Your task to perform on an android device: change the upload size in google photos Image 0: 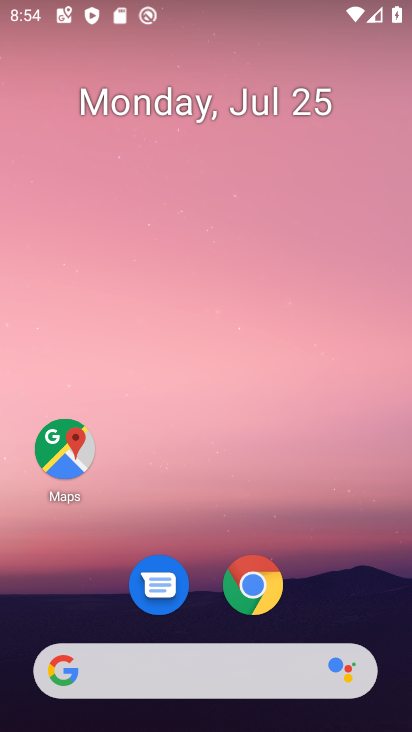
Step 0: drag from (187, 667) to (394, 46)
Your task to perform on an android device: change the upload size in google photos Image 1: 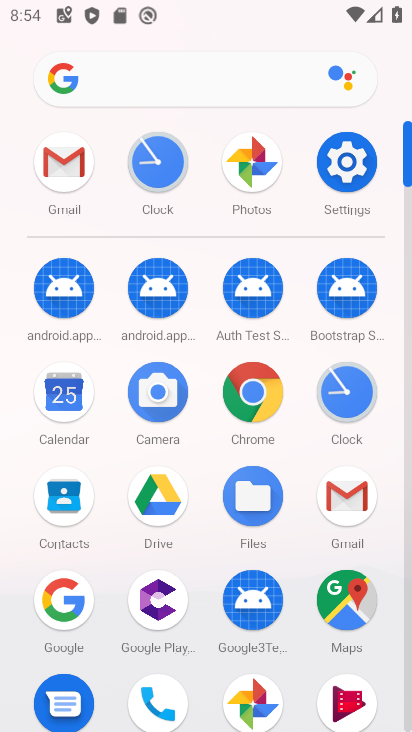
Step 1: drag from (186, 619) to (337, 220)
Your task to perform on an android device: change the upload size in google photos Image 2: 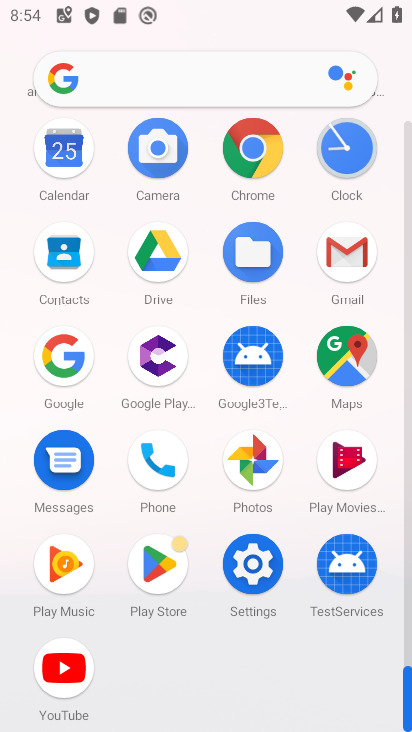
Step 2: click (254, 456)
Your task to perform on an android device: change the upload size in google photos Image 3: 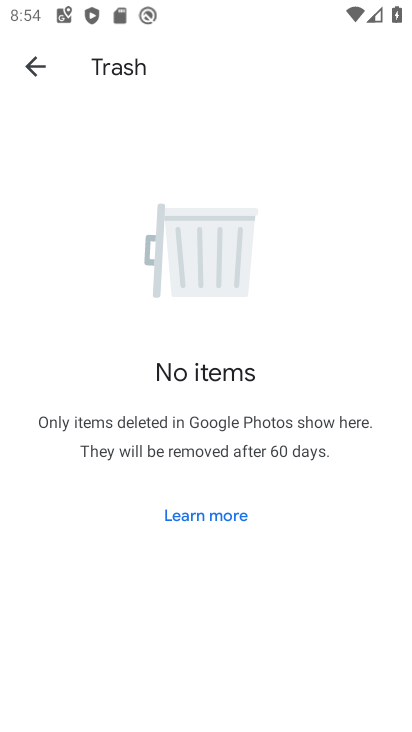
Step 3: click (37, 64)
Your task to perform on an android device: change the upload size in google photos Image 4: 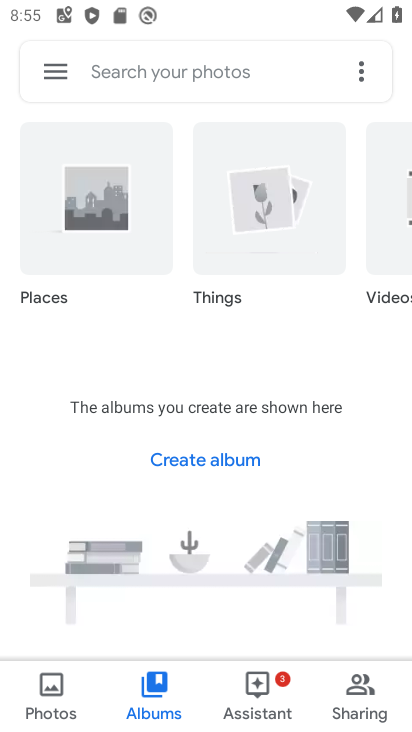
Step 4: click (49, 69)
Your task to perform on an android device: change the upload size in google photos Image 5: 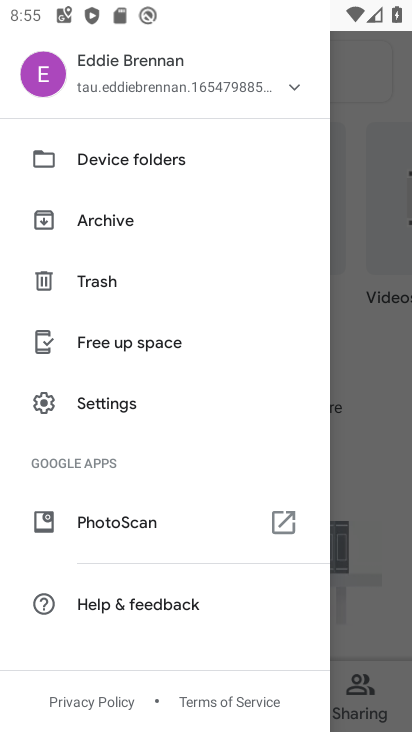
Step 5: click (109, 397)
Your task to perform on an android device: change the upload size in google photos Image 6: 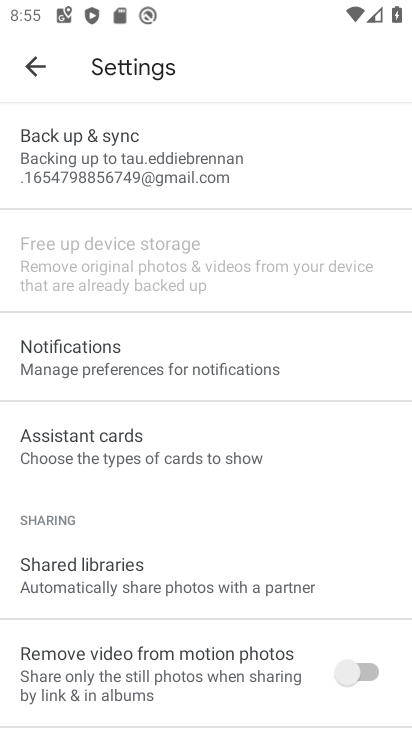
Step 6: click (137, 171)
Your task to perform on an android device: change the upload size in google photos Image 7: 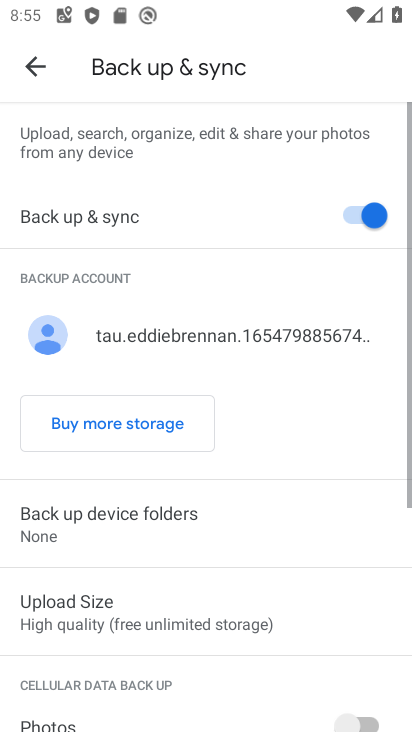
Step 7: drag from (186, 541) to (319, 200)
Your task to perform on an android device: change the upload size in google photos Image 8: 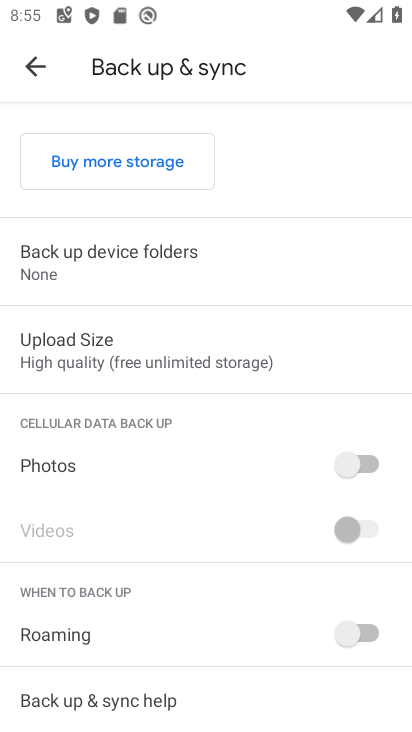
Step 8: click (142, 342)
Your task to perform on an android device: change the upload size in google photos Image 9: 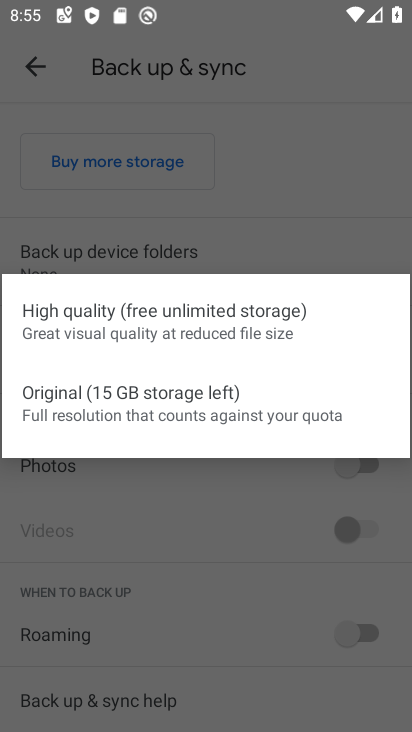
Step 9: click (84, 397)
Your task to perform on an android device: change the upload size in google photos Image 10: 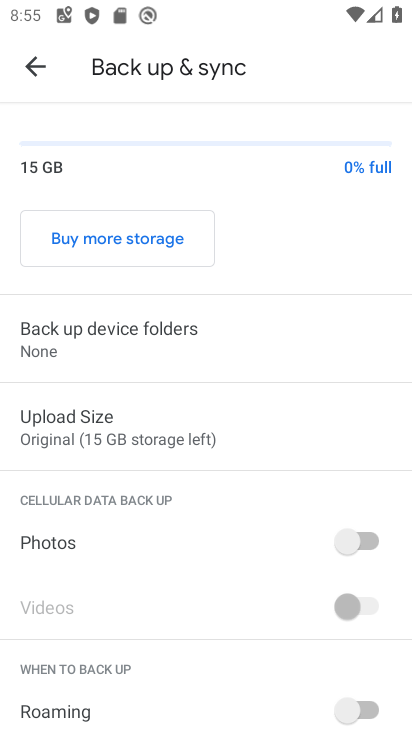
Step 10: task complete